Your task to perform on an android device: Go to internet settings Image 0: 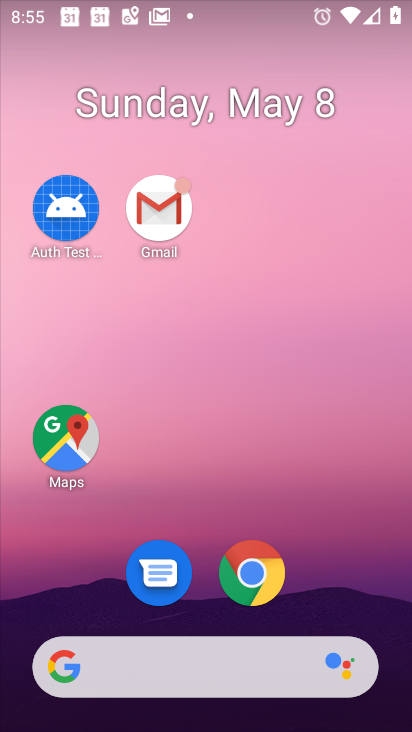
Step 0: drag from (358, 599) to (190, 102)
Your task to perform on an android device: Go to internet settings Image 1: 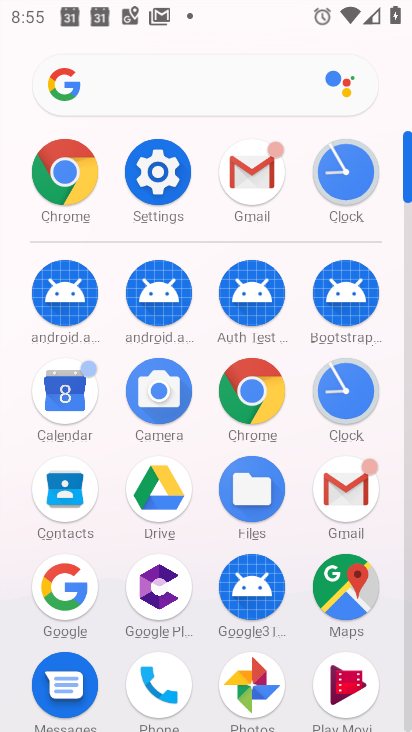
Step 1: click (64, 178)
Your task to perform on an android device: Go to internet settings Image 2: 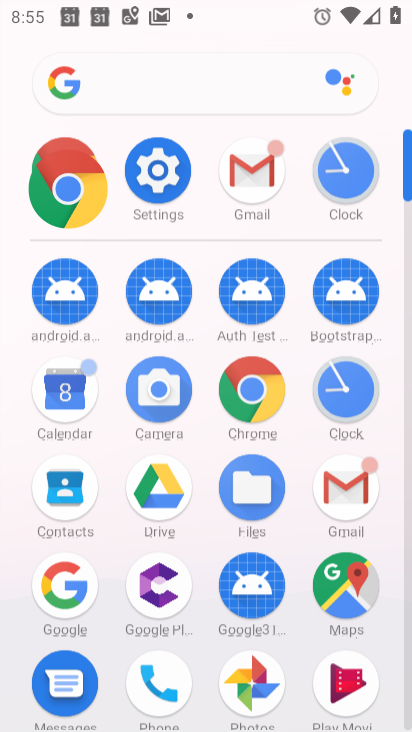
Step 2: click (65, 177)
Your task to perform on an android device: Go to internet settings Image 3: 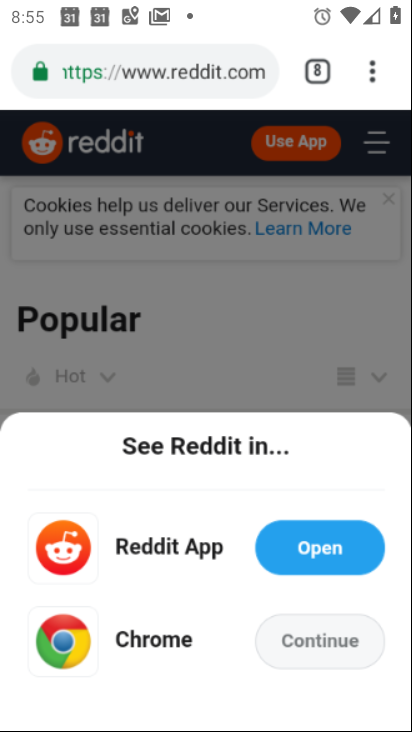
Step 3: click (70, 180)
Your task to perform on an android device: Go to internet settings Image 4: 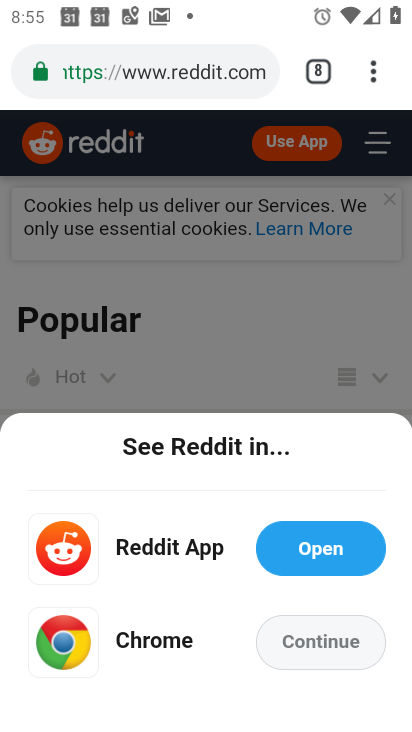
Step 4: click (373, 73)
Your task to perform on an android device: Go to internet settings Image 5: 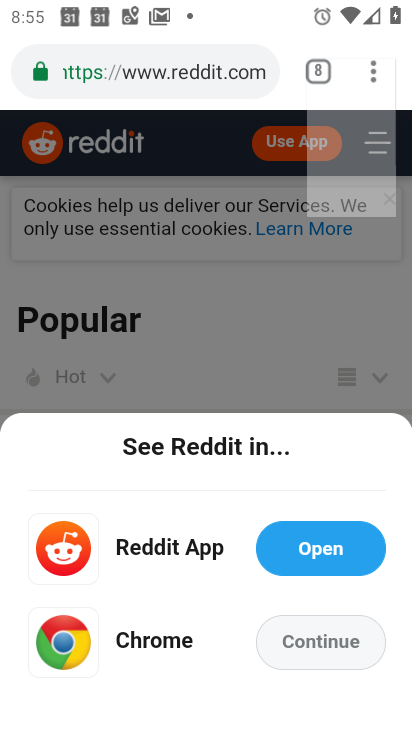
Step 5: click (373, 73)
Your task to perform on an android device: Go to internet settings Image 6: 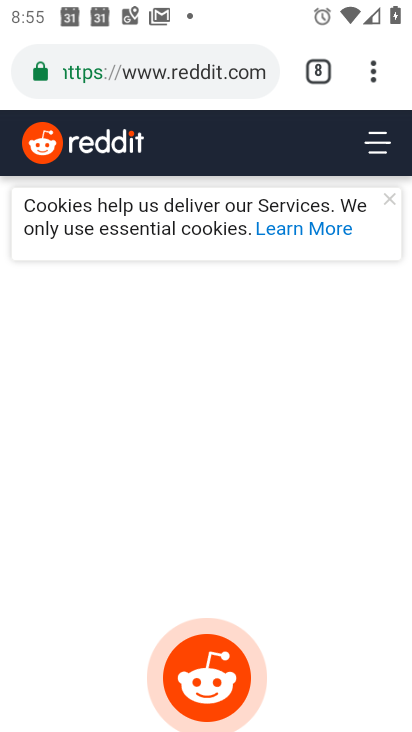
Step 6: click (371, 72)
Your task to perform on an android device: Go to internet settings Image 7: 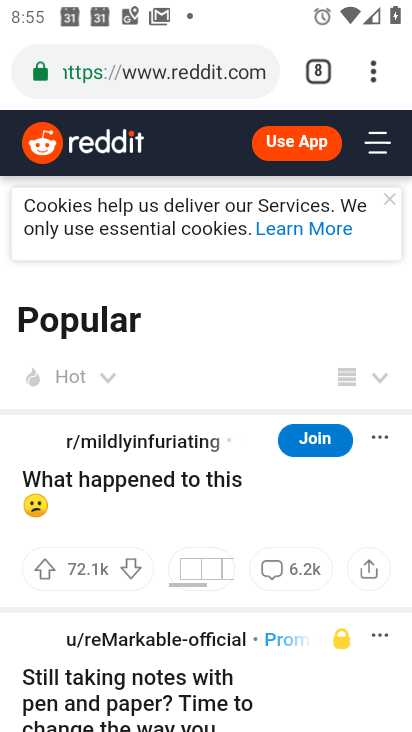
Step 7: press home button
Your task to perform on an android device: Go to internet settings Image 8: 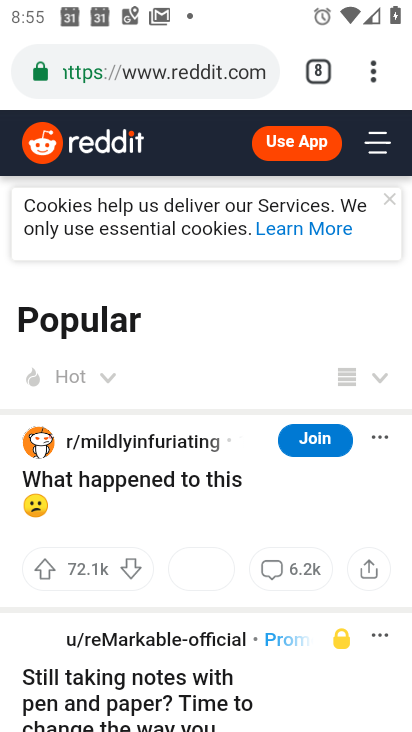
Step 8: press home button
Your task to perform on an android device: Go to internet settings Image 9: 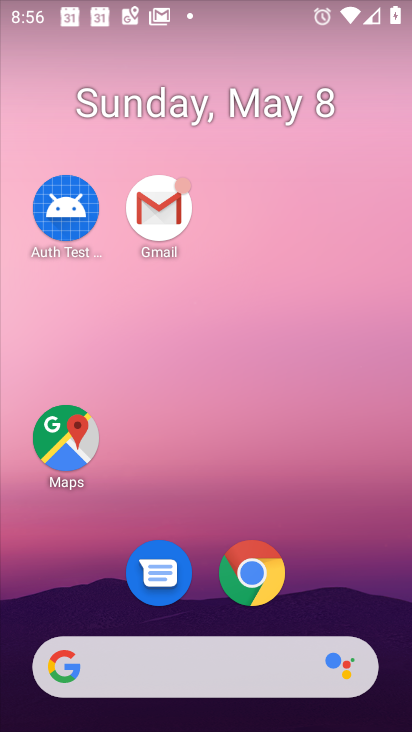
Step 9: drag from (346, 571) to (195, 80)
Your task to perform on an android device: Go to internet settings Image 10: 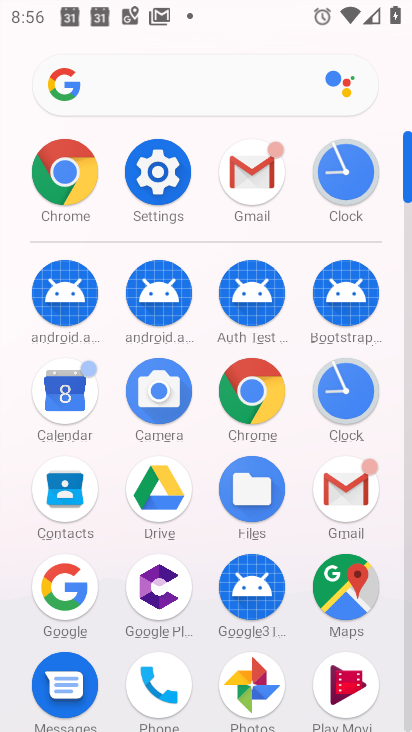
Step 10: click (159, 181)
Your task to perform on an android device: Go to internet settings Image 11: 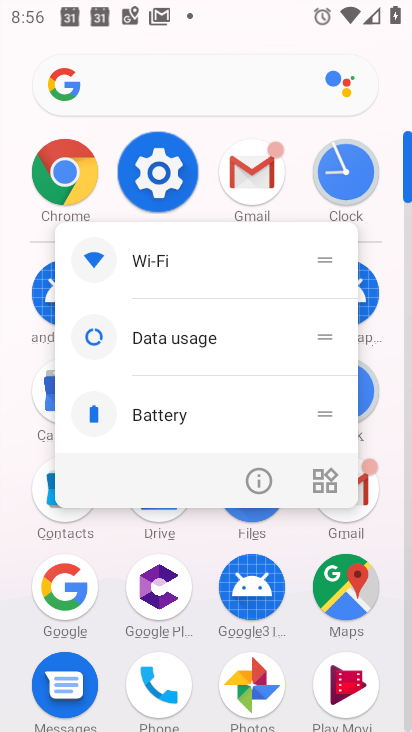
Step 11: click (159, 181)
Your task to perform on an android device: Go to internet settings Image 12: 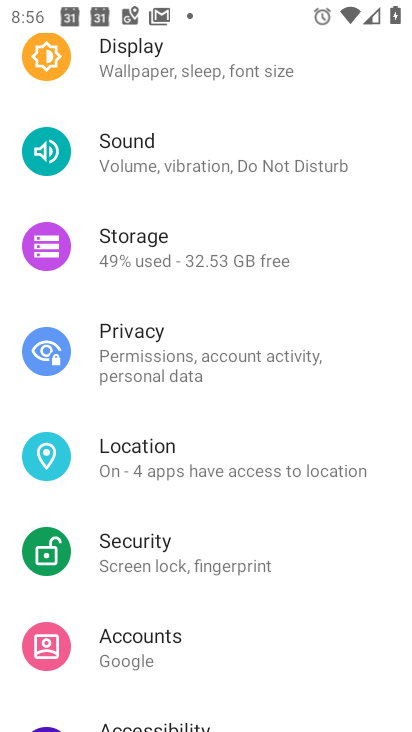
Step 12: task complete